Your task to perform on an android device: Go to calendar. Show me events next week Image 0: 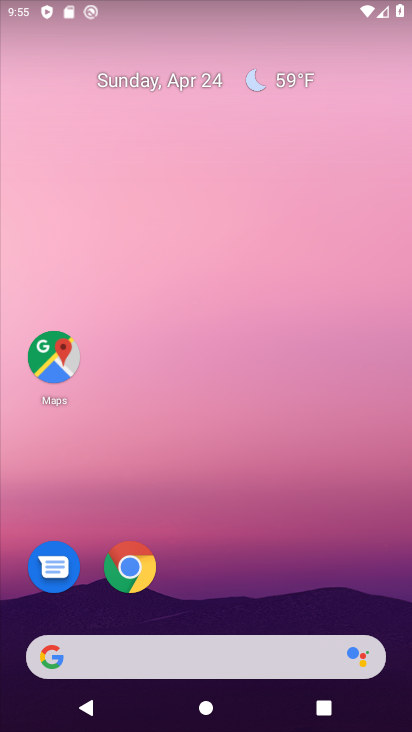
Step 0: drag from (369, 192) to (369, 152)
Your task to perform on an android device: Go to calendar. Show me events next week Image 1: 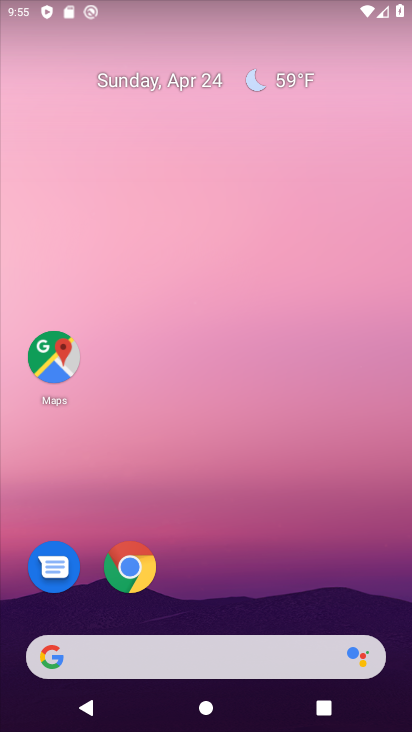
Step 1: drag from (373, 342) to (365, 186)
Your task to perform on an android device: Go to calendar. Show me events next week Image 2: 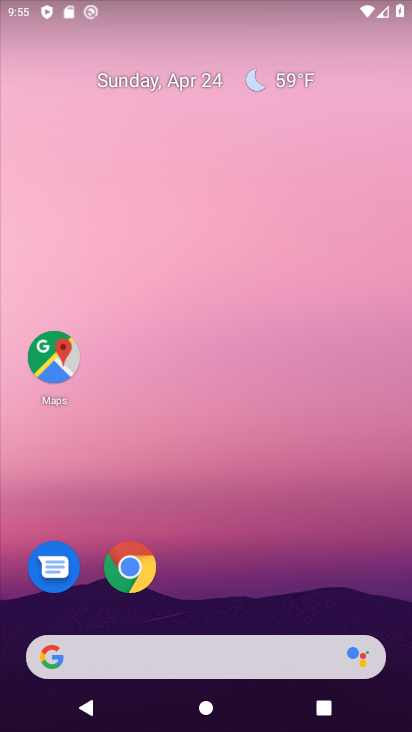
Step 2: drag from (377, 411) to (376, 262)
Your task to perform on an android device: Go to calendar. Show me events next week Image 3: 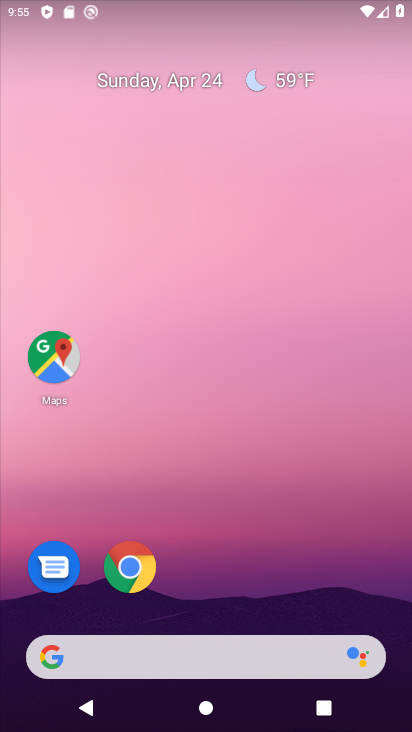
Step 3: drag from (396, 640) to (347, 114)
Your task to perform on an android device: Go to calendar. Show me events next week Image 4: 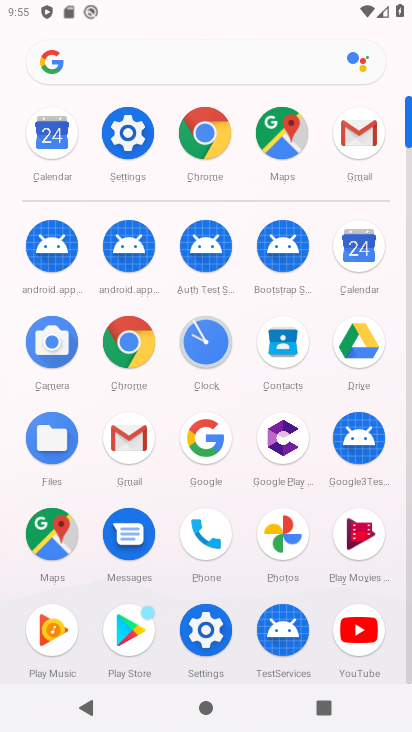
Step 4: click (356, 259)
Your task to perform on an android device: Go to calendar. Show me events next week Image 5: 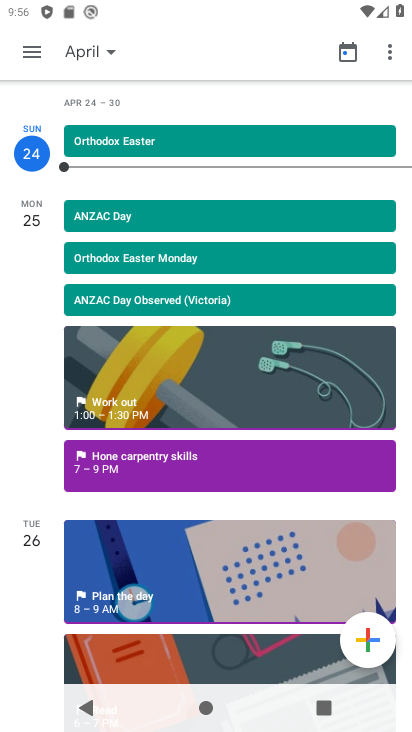
Step 5: click (106, 52)
Your task to perform on an android device: Go to calendar. Show me events next week Image 6: 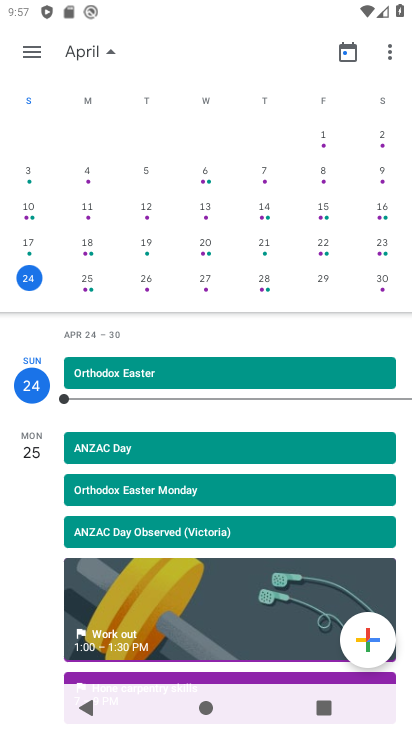
Step 6: drag from (406, 181) to (0, 178)
Your task to perform on an android device: Go to calendar. Show me events next week Image 7: 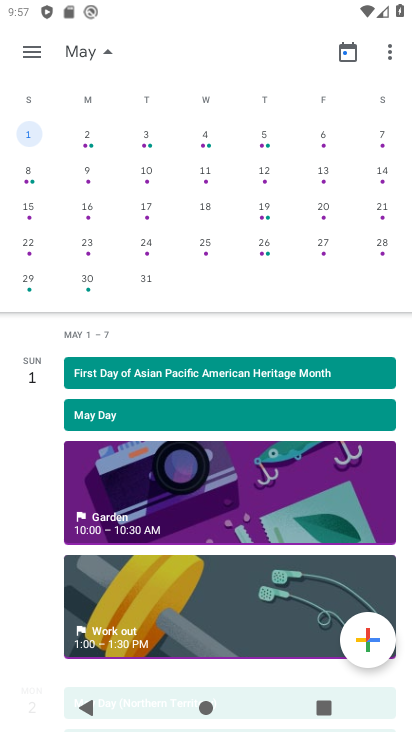
Step 7: click (86, 136)
Your task to perform on an android device: Go to calendar. Show me events next week Image 8: 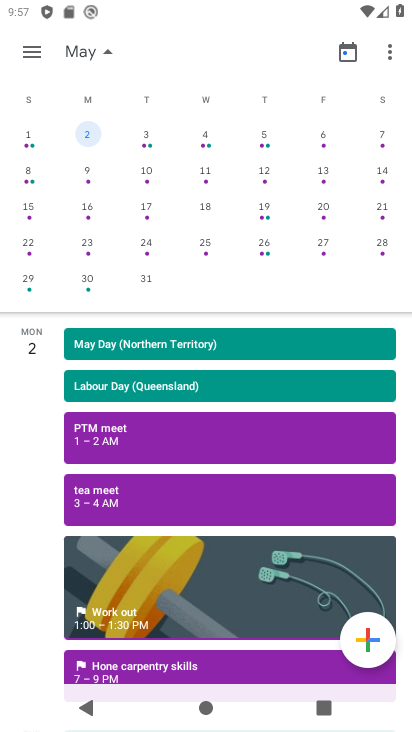
Step 8: task complete